Your task to perform on an android device: Open calendar and show me the third week of next month Image 0: 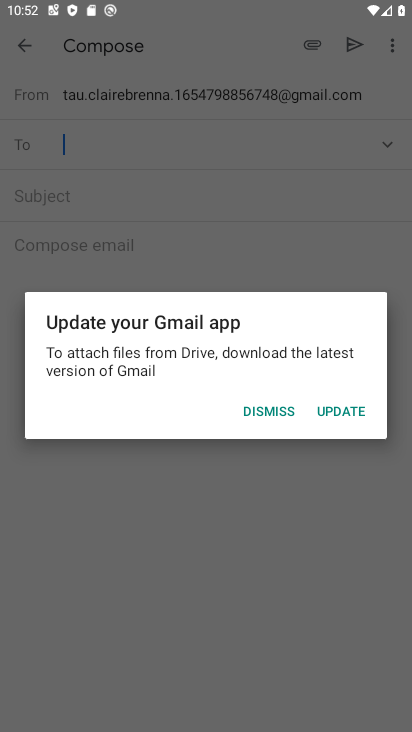
Step 0: press home button
Your task to perform on an android device: Open calendar and show me the third week of next month Image 1: 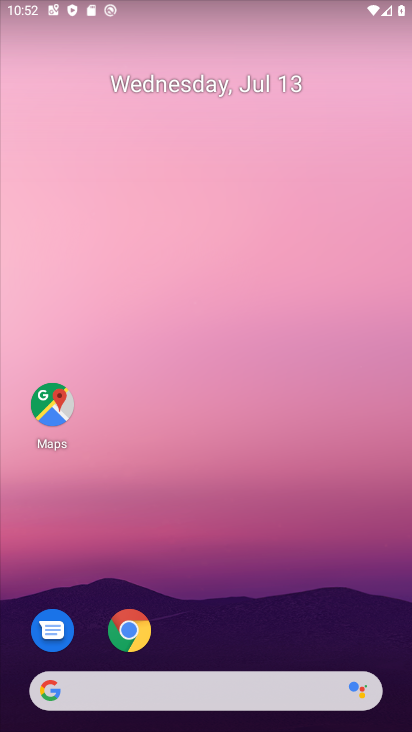
Step 1: drag from (233, 523) to (58, 2)
Your task to perform on an android device: Open calendar and show me the third week of next month Image 2: 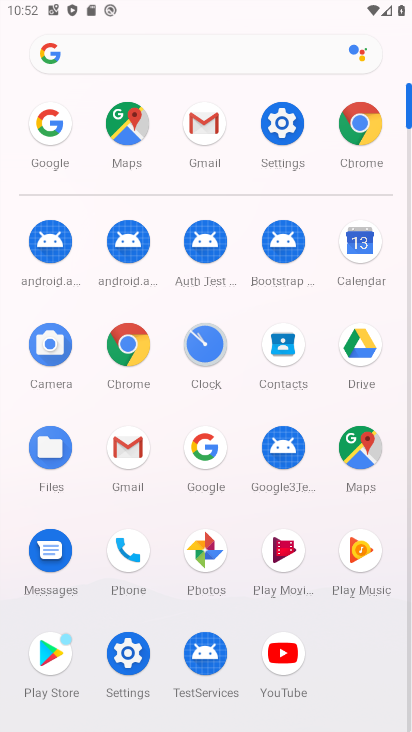
Step 2: click (366, 239)
Your task to perform on an android device: Open calendar and show me the third week of next month Image 3: 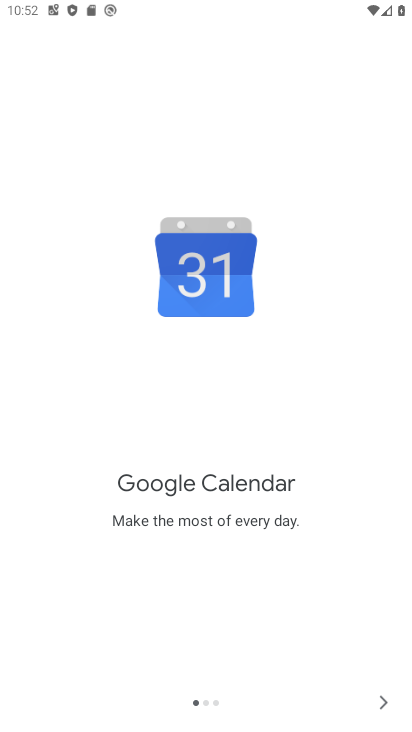
Step 3: click (385, 704)
Your task to perform on an android device: Open calendar and show me the third week of next month Image 4: 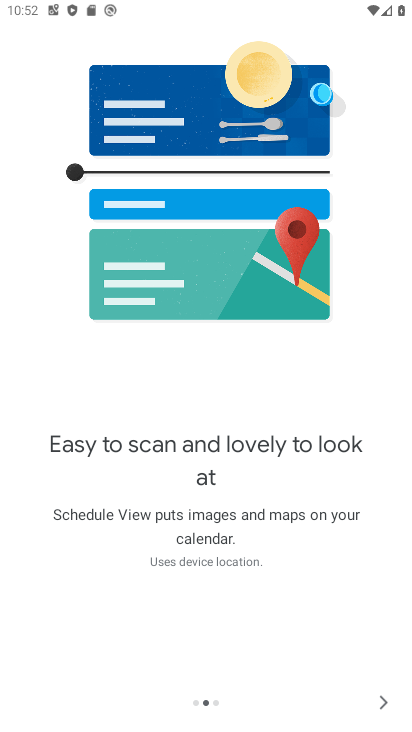
Step 4: click (373, 696)
Your task to perform on an android device: Open calendar and show me the third week of next month Image 5: 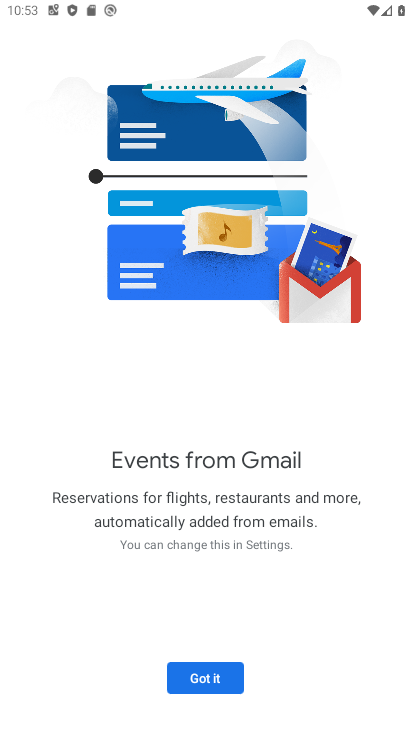
Step 5: click (186, 670)
Your task to perform on an android device: Open calendar and show me the third week of next month Image 6: 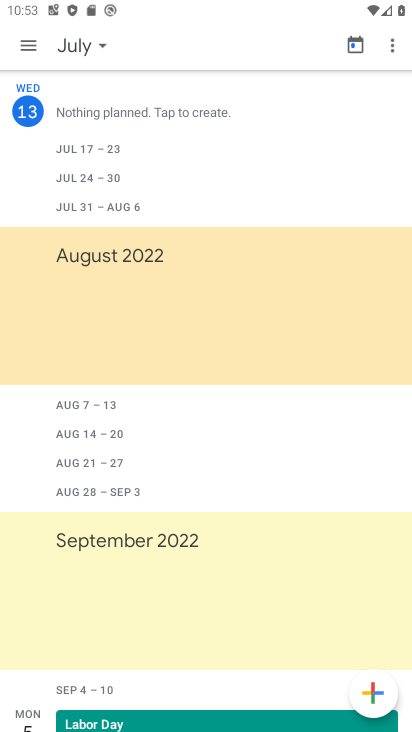
Step 6: click (67, 41)
Your task to perform on an android device: Open calendar and show me the third week of next month Image 7: 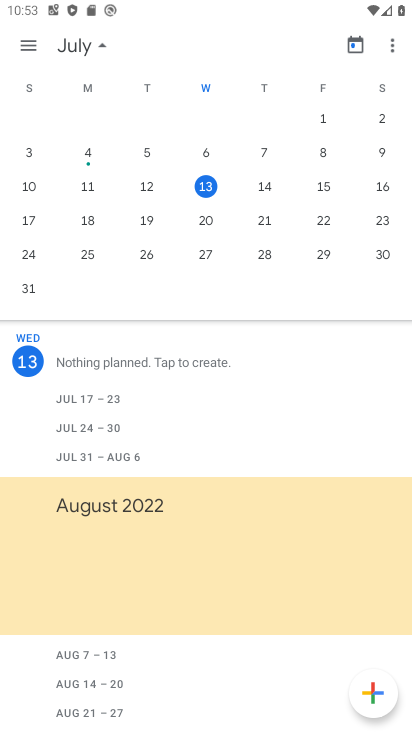
Step 7: drag from (340, 278) to (13, 162)
Your task to perform on an android device: Open calendar and show me the third week of next month Image 8: 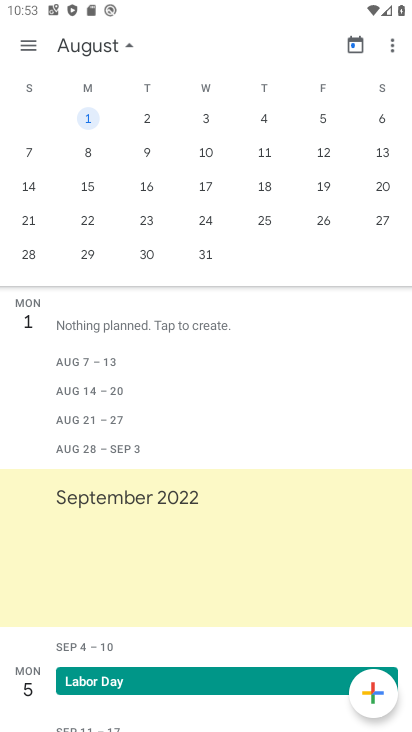
Step 8: click (32, 218)
Your task to perform on an android device: Open calendar and show me the third week of next month Image 9: 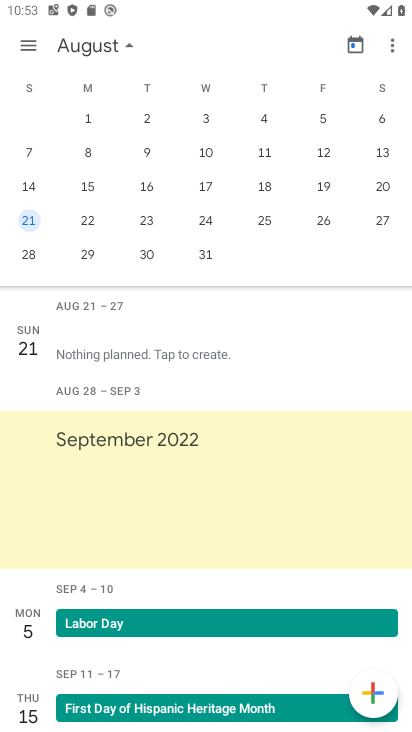
Step 9: task complete